Your task to perform on an android device: Open Google Maps and go to "Timeline" Image 0: 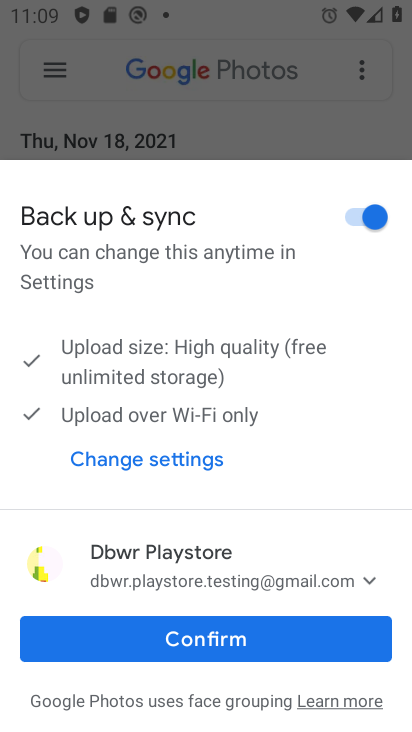
Step 0: click (155, 644)
Your task to perform on an android device: Open Google Maps and go to "Timeline" Image 1: 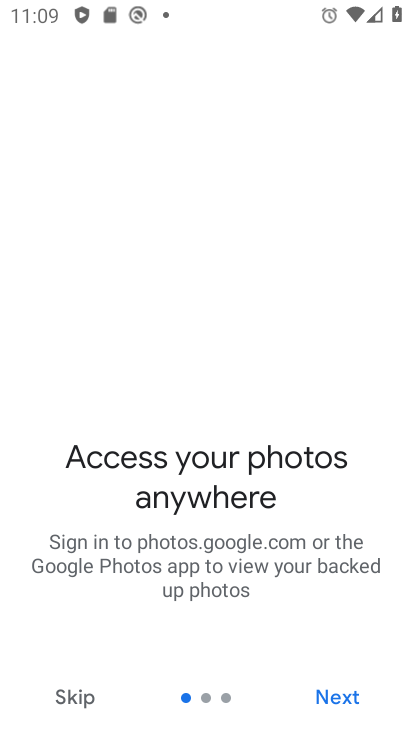
Step 1: press home button
Your task to perform on an android device: Open Google Maps and go to "Timeline" Image 2: 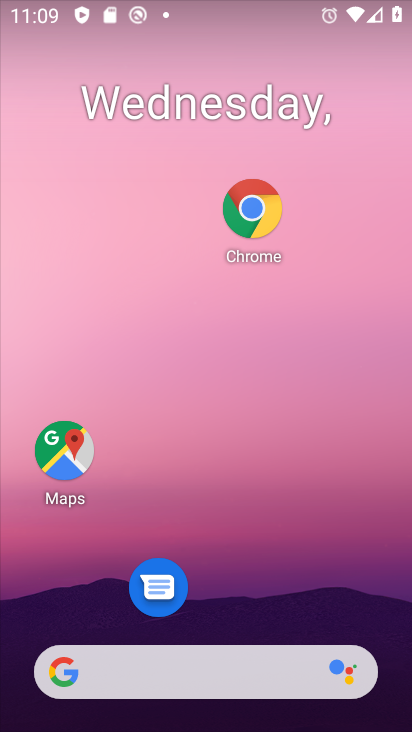
Step 2: click (71, 457)
Your task to perform on an android device: Open Google Maps and go to "Timeline" Image 3: 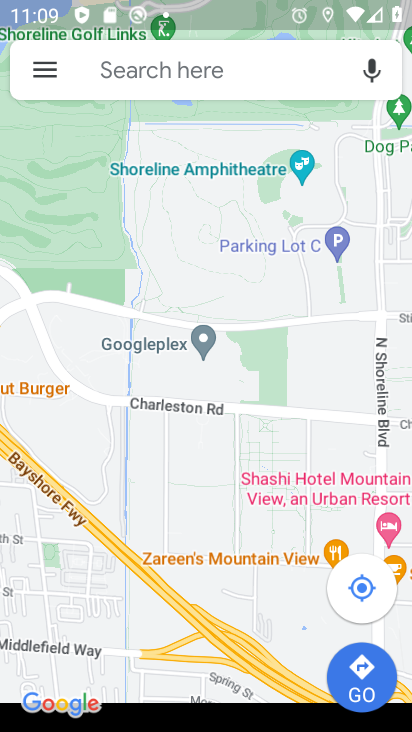
Step 3: click (49, 71)
Your task to perform on an android device: Open Google Maps and go to "Timeline" Image 4: 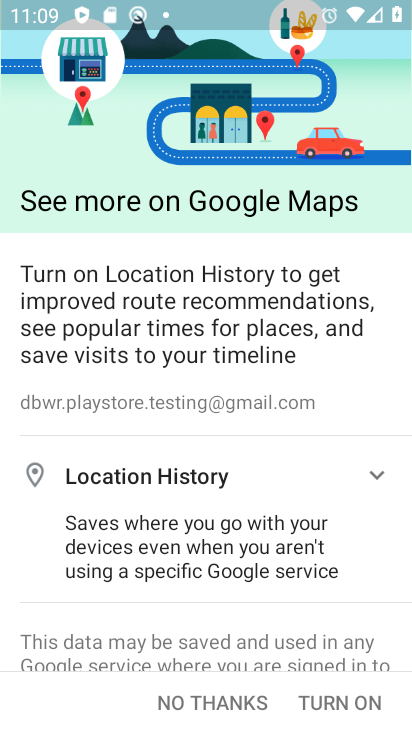
Step 4: click (231, 706)
Your task to perform on an android device: Open Google Maps and go to "Timeline" Image 5: 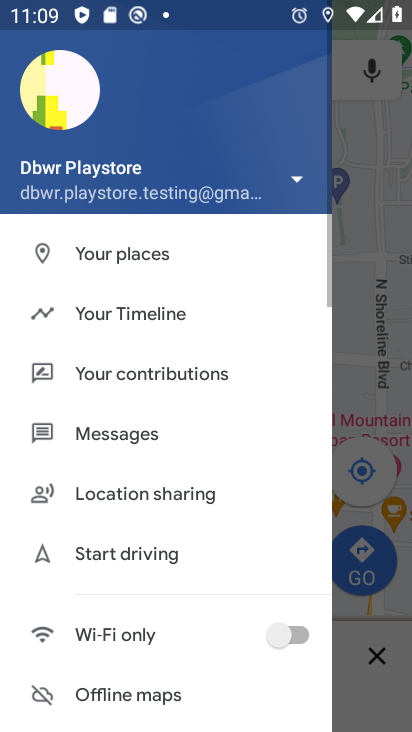
Step 5: click (127, 298)
Your task to perform on an android device: Open Google Maps and go to "Timeline" Image 6: 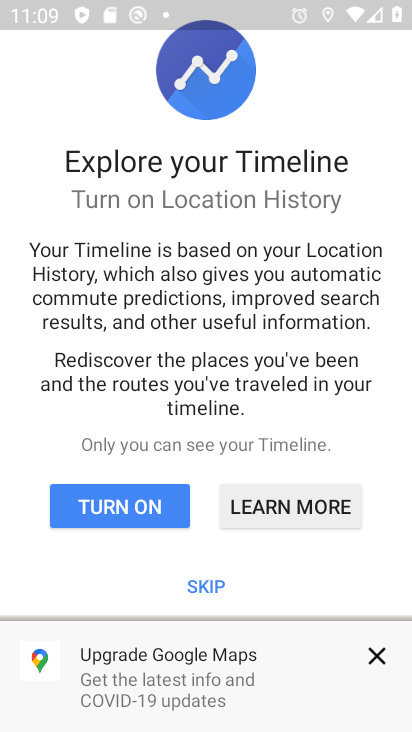
Step 6: click (150, 516)
Your task to perform on an android device: Open Google Maps and go to "Timeline" Image 7: 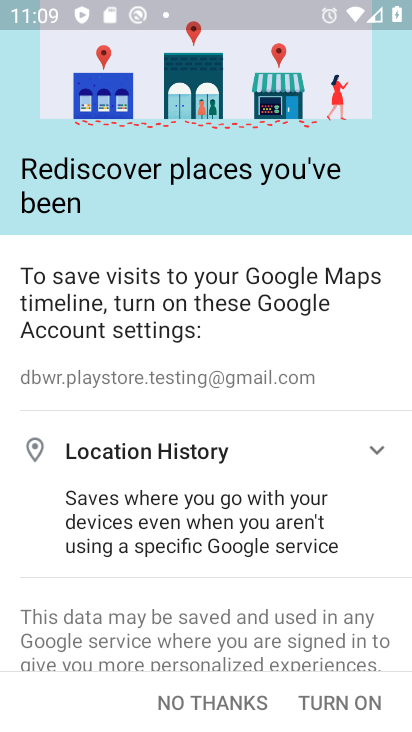
Step 7: click (233, 709)
Your task to perform on an android device: Open Google Maps and go to "Timeline" Image 8: 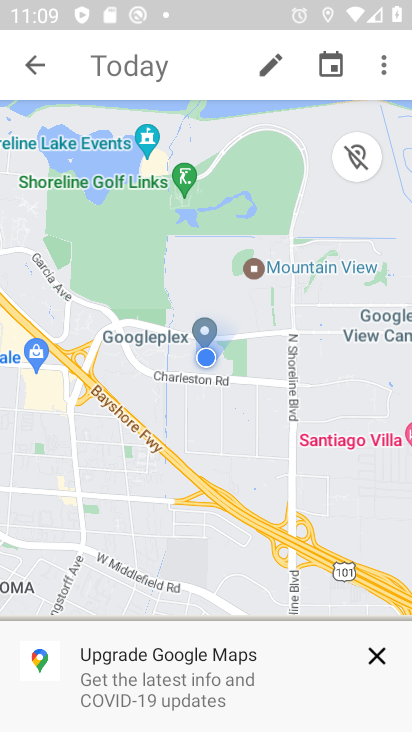
Step 8: task complete